Your task to perform on an android device: refresh tabs in the chrome app Image 0: 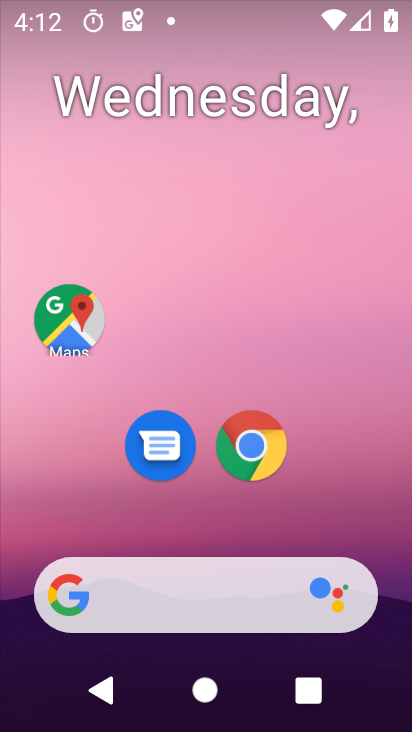
Step 0: click (250, 442)
Your task to perform on an android device: refresh tabs in the chrome app Image 1: 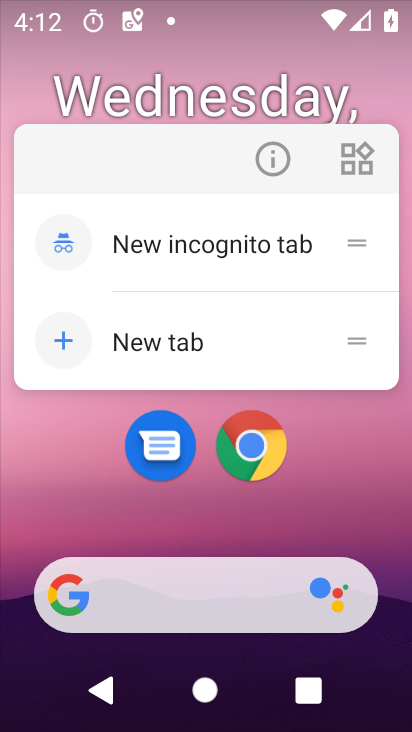
Step 1: click (255, 434)
Your task to perform on an android device: refresh tabs in the chrome app Image 2: 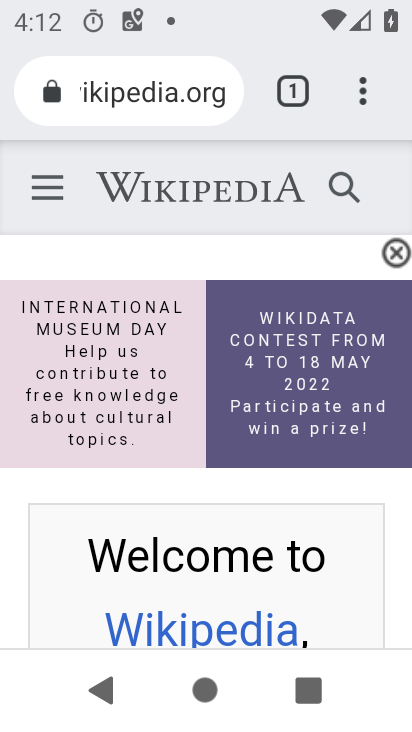
Step 2: click (360, 91)
Your task to perform on an android device: refresh tabs in the chrome app Image 3: 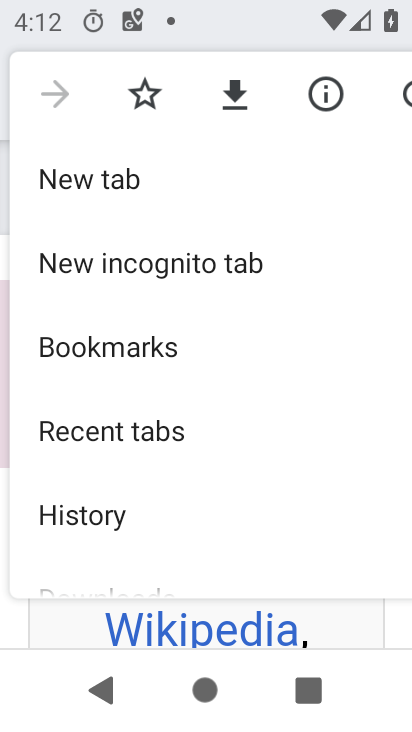
Step 3: click (407, 94)
Your task to perform on an android device: refresh tabs in the chrome app Image 4: 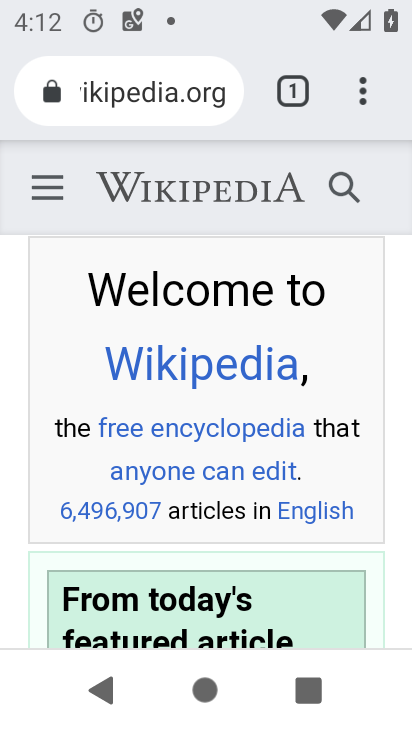
Step 4: task complete